Your task to perform on an android device: Open the calendar app, open the side menu, and click the "Day" option Image 0: 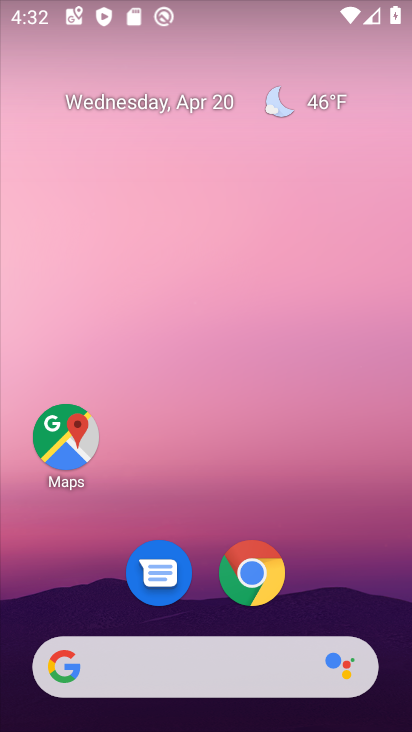
Step 0: drag from (364, 348) to (358, 288)
Your task to perform on an android device: Open the calendar app, open the side menu, and click the "Day" option Image 1: 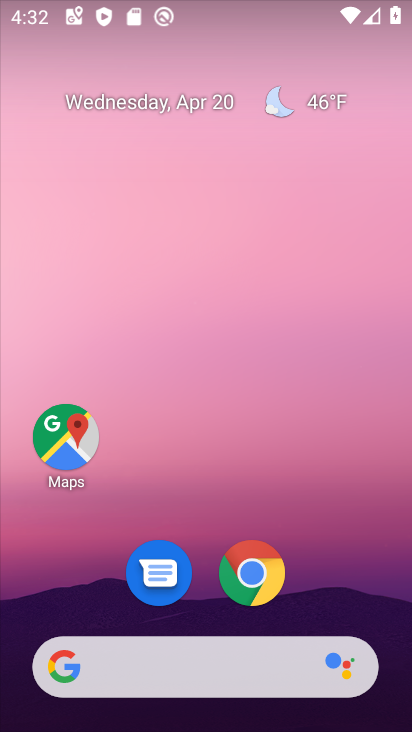
Step 1: drag from (378, 613) to (376, 77)
Your task to perform on an android device: Open the calendar app, open the side menu, and click the "Day" option Image 2: 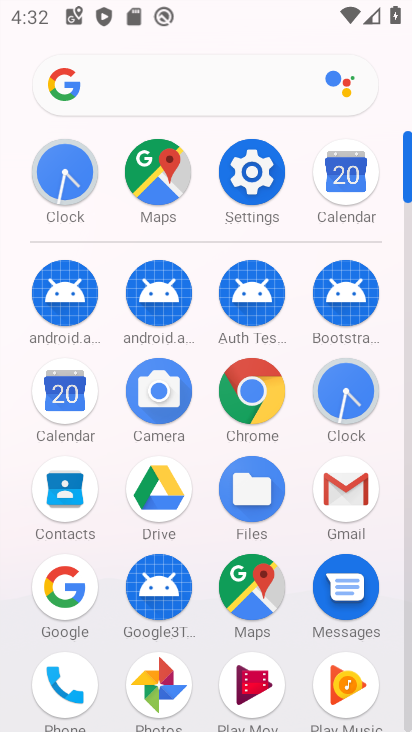
Step 2: click (339, 180)
Your task to perform on an android device: Open the calendar app, open the side menu, and click the "Day" option Image 3: 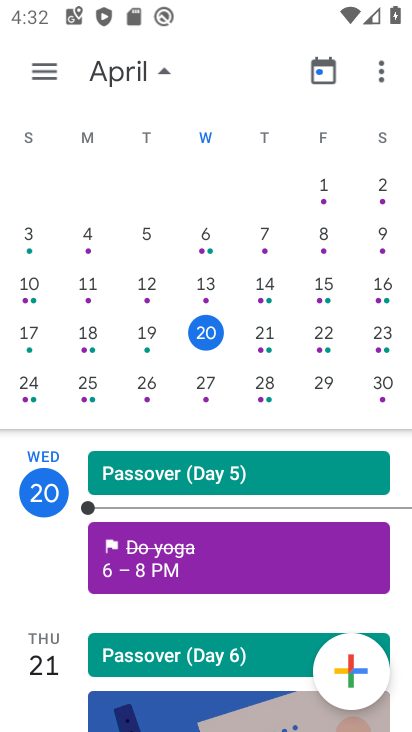
Step 3: click (42, 64)
Your task to perform on an android device: Open the calendar app, open the side menu, and click the "Day" option Image 4: 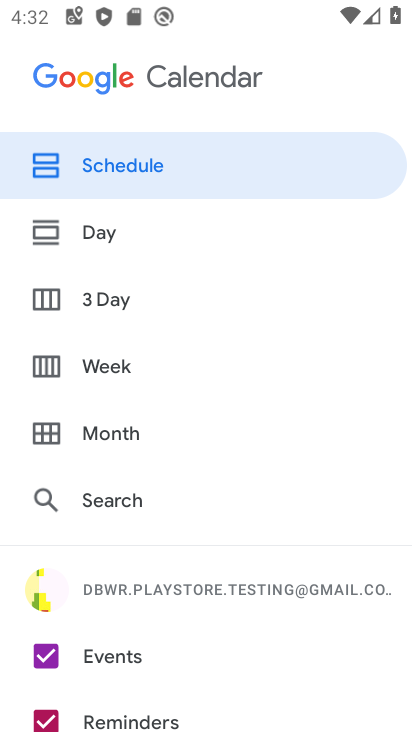
Step 4: click (71, 232)
Your task to perform on an android device: Open the calendar app, open the side menu, and click the "Day" option Image 5: 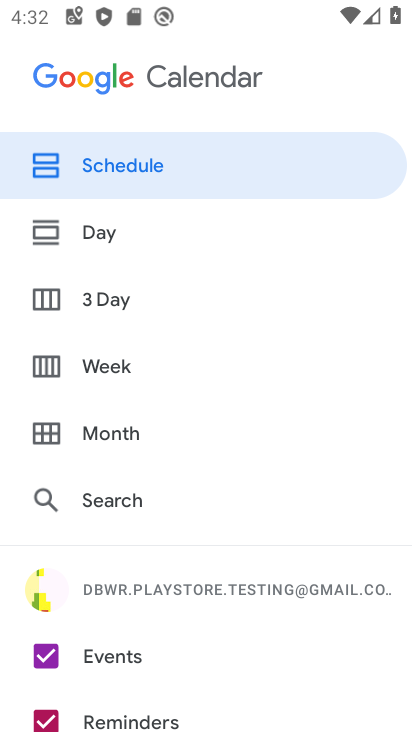
Step 5: click (90, 230)
Your task to perform on an android device: Open the calendar app, open the side menu, and click the "Day" option Image 6: 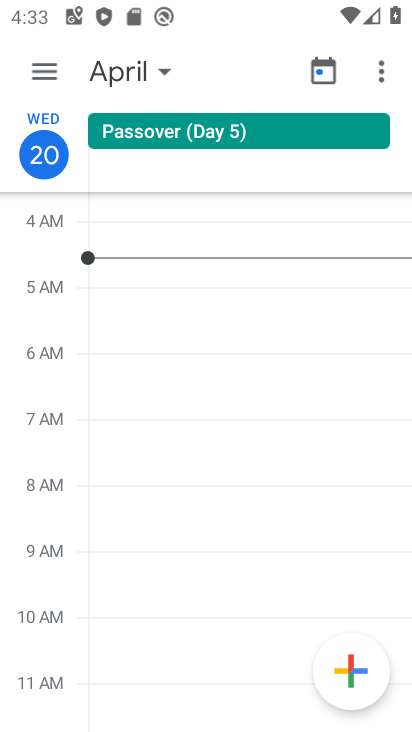
Step 6: task complete